Your task to perform on an android device: What's the weather going to be this weekend? Image 0: 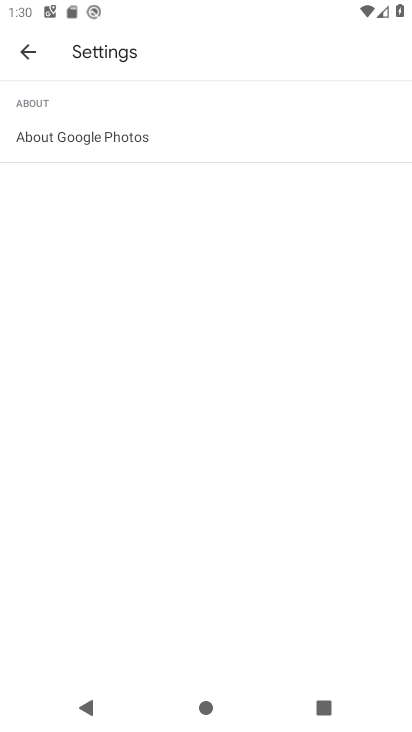
Step 0: press home button
Your task to perform on an android device: What's the weather going to be this weekend? Image 1: 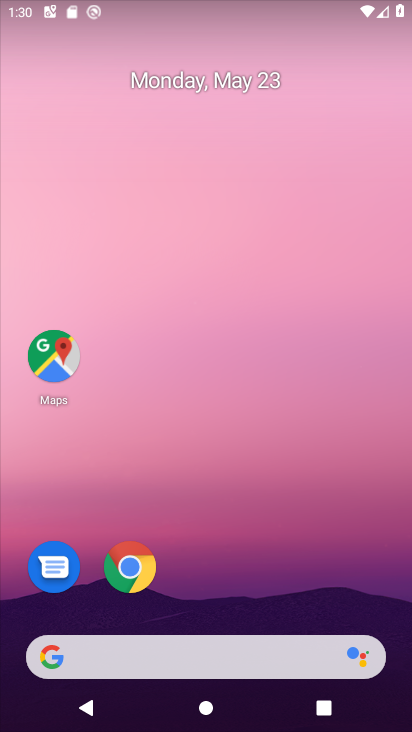
Step 1: drag from (287, 584) to (259, 187)
Your task to perform on an android device: What's the weather going to be this weekend? Image 2: 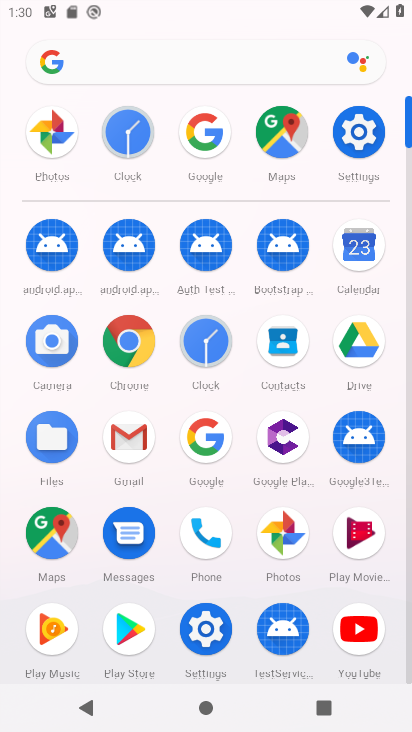
Step 2: click (189, 448)
Your task to perform on an android device: What's the weather going to be this weekend? Image 3: 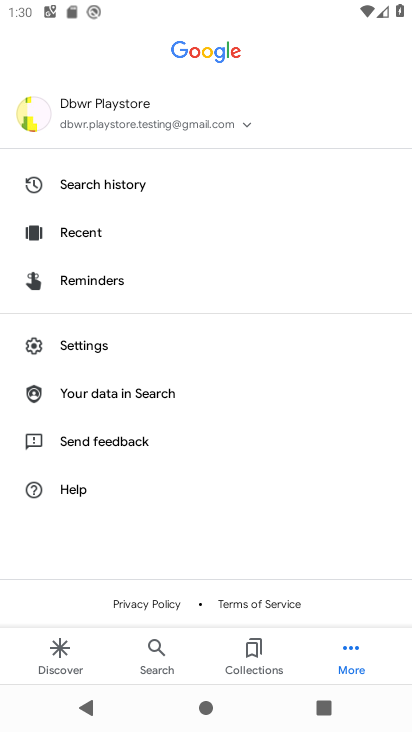
Step 3: click (44, 649)
Your task to perform on an android device: What's the weather going to be this weekend? Image 4: 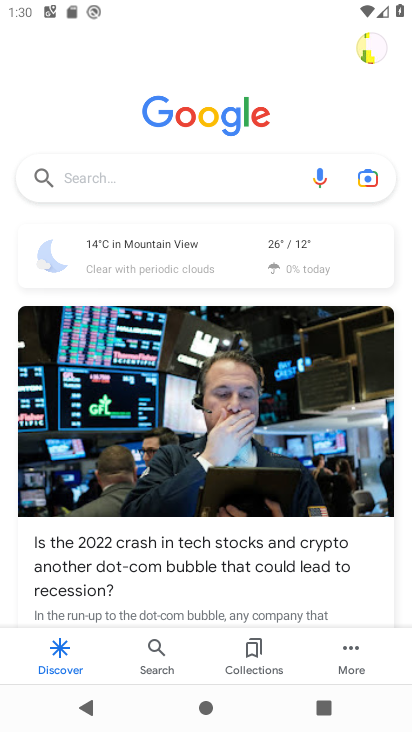
Step 4: click (202, 235)
Your task to perform on an android device: What's the weather going to be this weekend? Image 5: 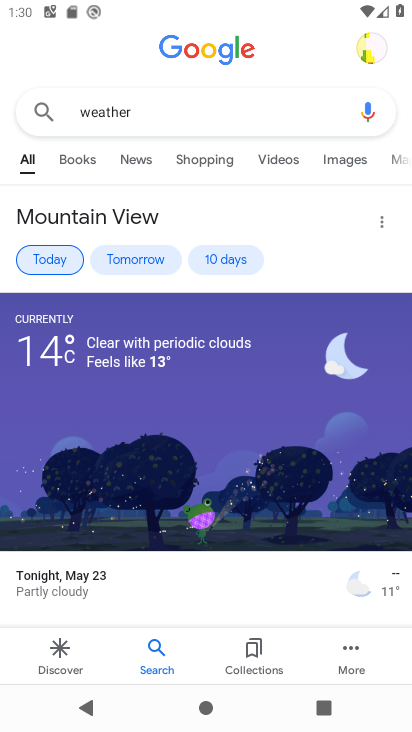
Step 5: click (226, 256)
Your task to perform on an android device: What's the weather going to be this weekend? Image 6: 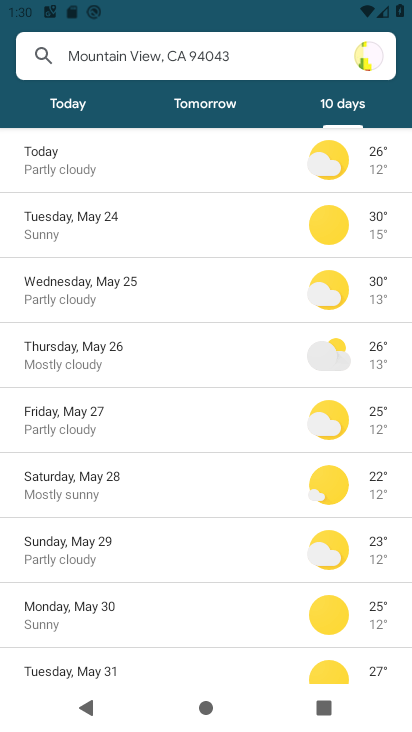
Step 6: task complete